Your task to perform on an android device: set an alarm Image 0: 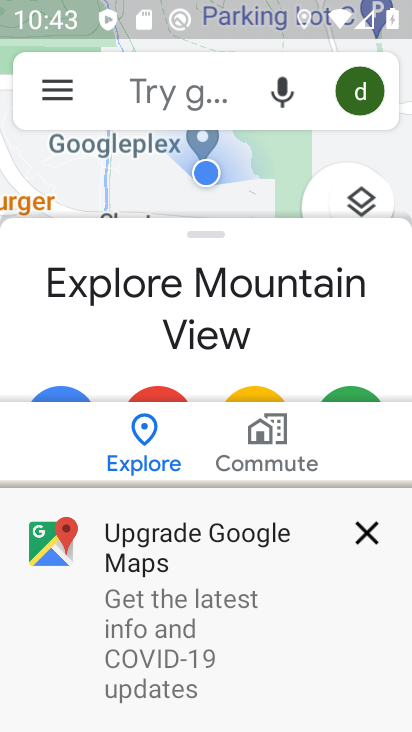
Step 0: click (231, 577)
Your task to perform on an android device: set an alarm Image 1: 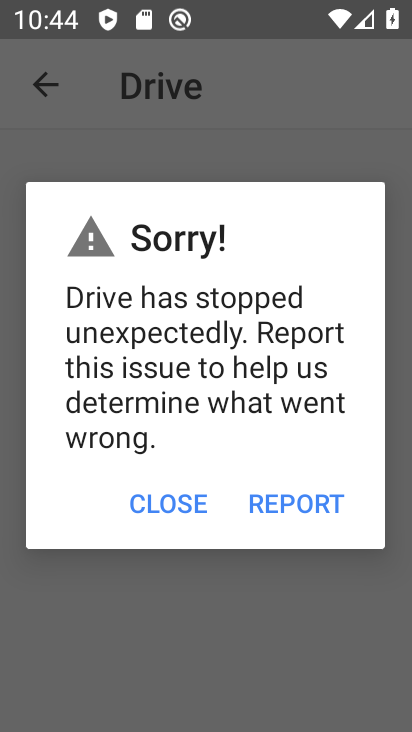
Step 1: press home button
Your task to perform on an android device: set an alarm Image 2: 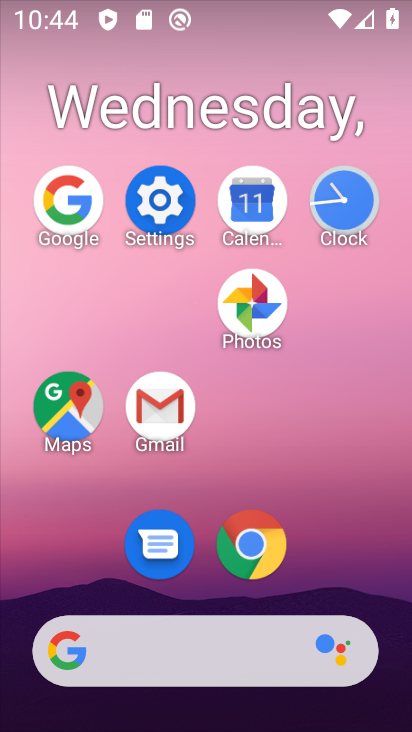
Step 2: click (349, 195)
Your task to perform on an android device: set an alarm Image 3: 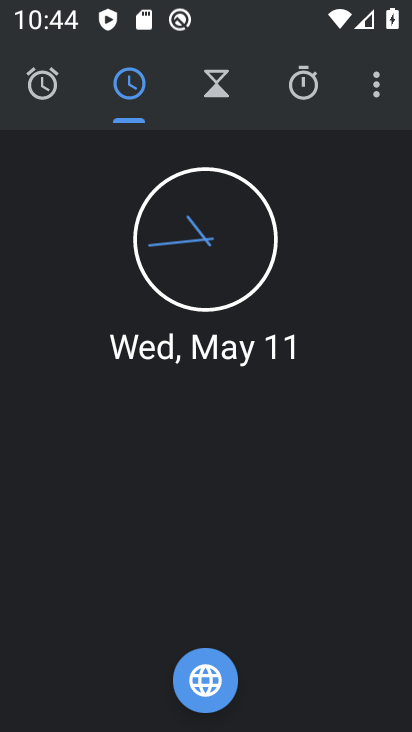
Step 3: click (58, 97)
Your task to perform on an android device: set an alarm Image 4: 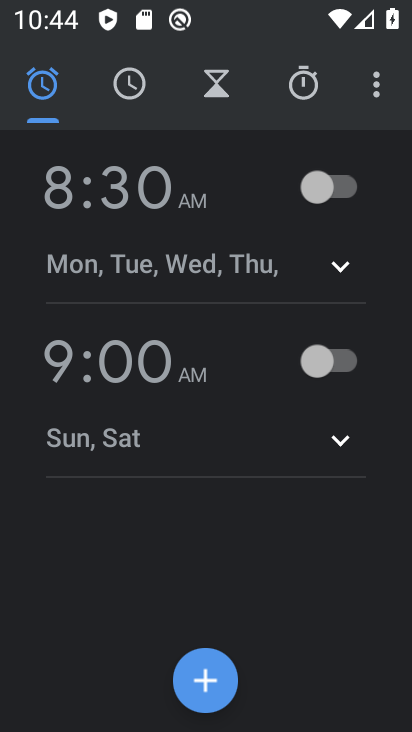
Step 4: click (319, 177)
Your task to perform on an android device: set an alarm Image 5: 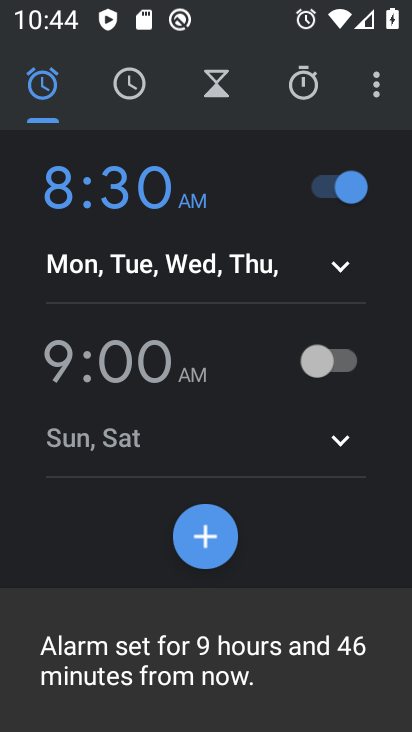
Step 5: task complete